Your task to perform on an android device: Go to calendar. Show me events next week Image 0: 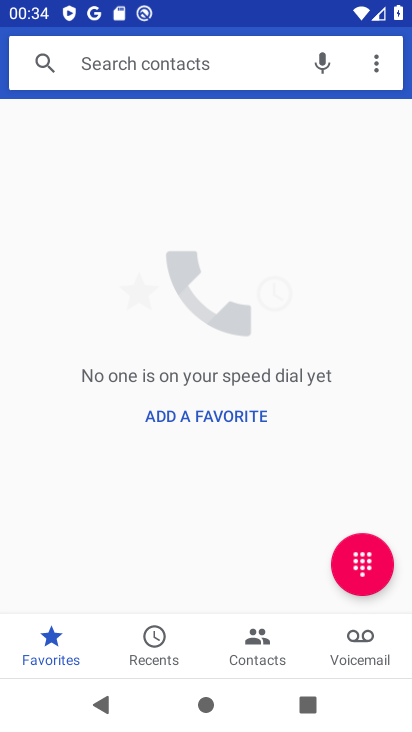
Step 0: press home button
Your task to perform on an android device: Go to calendar. Show me events next week Image 1: 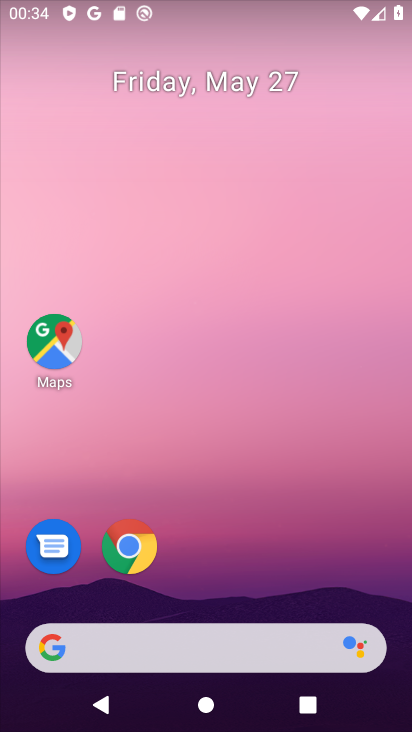
Step 1: drag from (372, 557) to (292, 100)
Your task to perform on an android device: Go to calendar. Show me events next week Image 2: 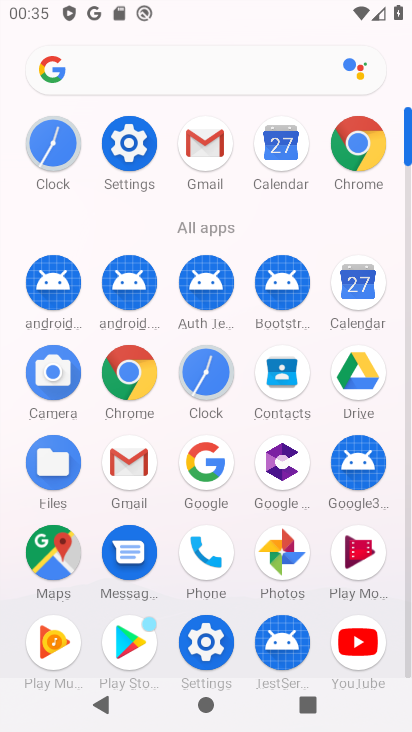
Step 2: click (351, 292)
Your task to perform on an android device: Go to calendar. Show me events next week Image 3: 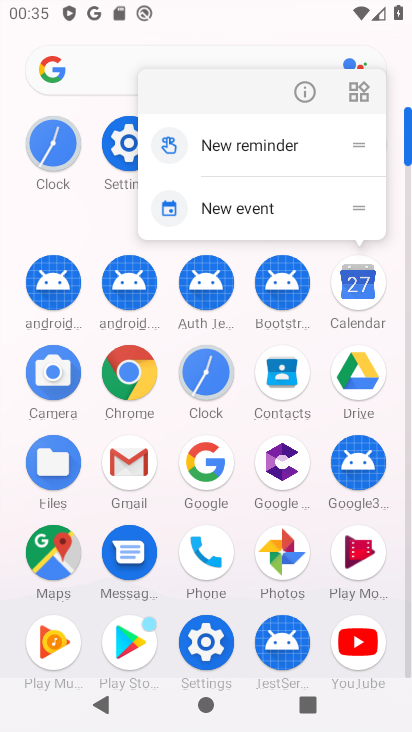
Step 3: click (353, 292)
Your task to perform on an android device: Go to calendar. Show me events next week Image 4: 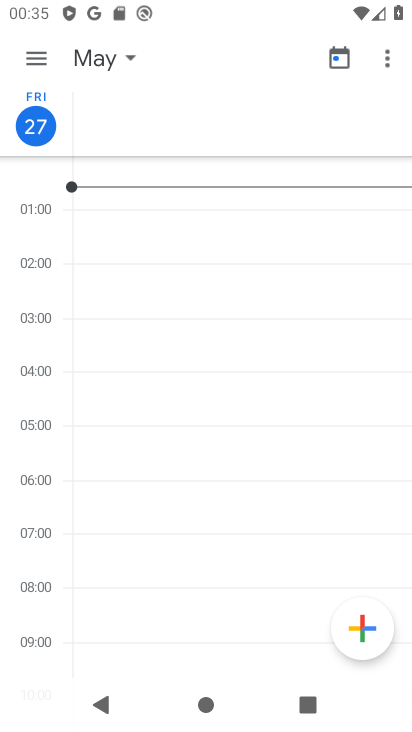
Step 4: click (97, 65)
Your task to perform on an android device: Go to calendar. Show me events next week Image 5: 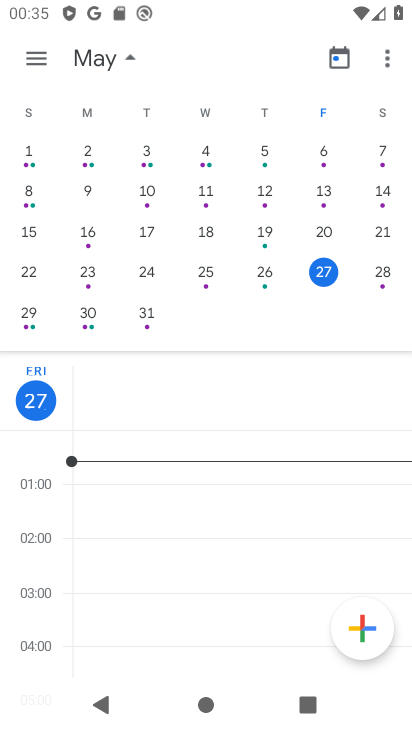
Step 5: click (26, 313)
Your task to perform on an android device: Go to calendar. Show me events next week Image 6: 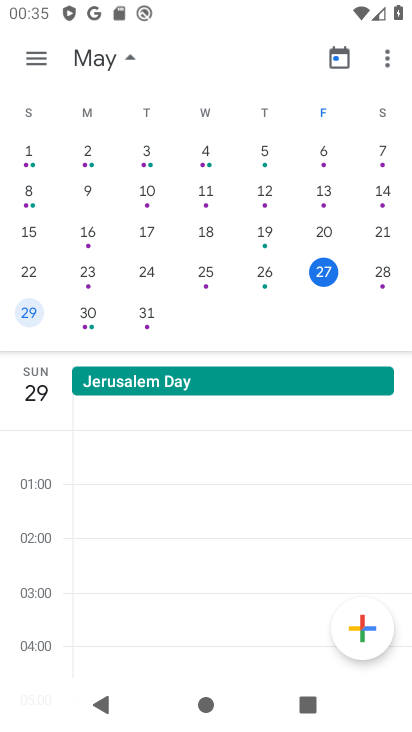
Step 6: task complete